Your task to perform on an android device: turn off data saver in the chrome app Image 0: 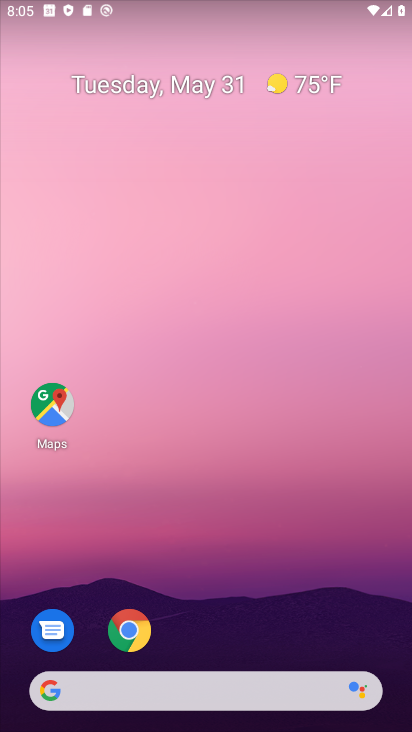
Step 0: drag from (232, 674) to (284, 250)
Your task to perform on an android device: turn off data saver in the chrome app Image 1: 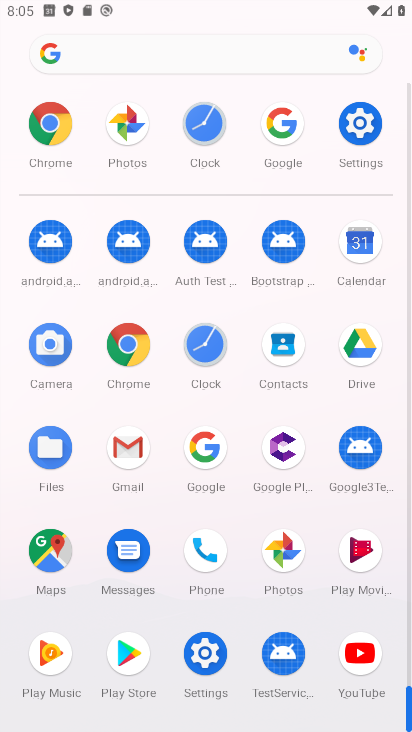
Step 1: click (66, 162)
Your task to perform on an android device: turn off data saver in the chrome app Image 2: 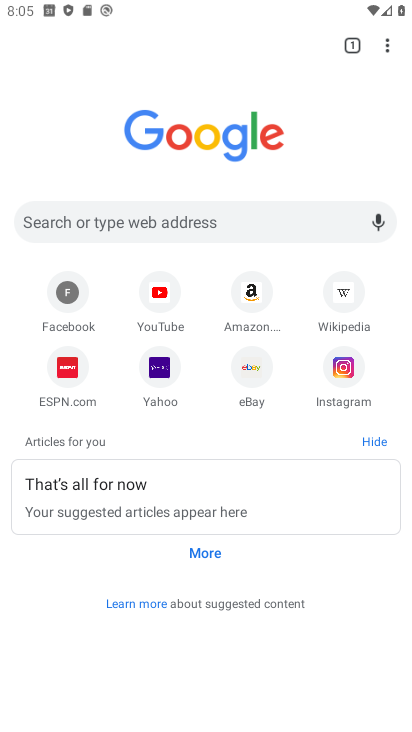
Step 2: click (389, 46)
Your task to perform on an android device: turn off data saver in the chrome app Image 3: 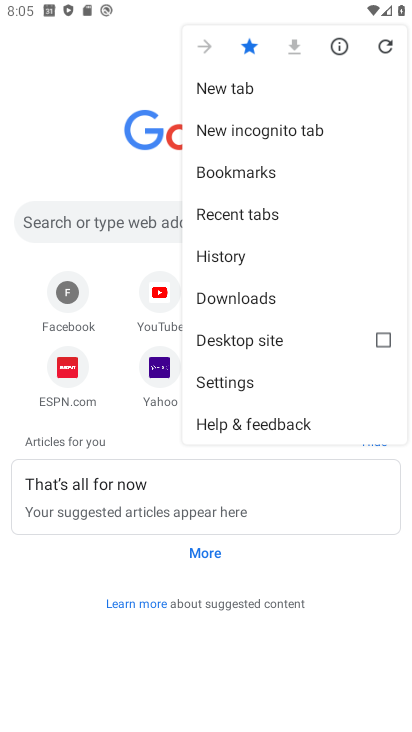
Step 3: drag from (297, 296) to (324, 127)
Your task to perform on an android device: turn off data saver in the chrome app Image 4: 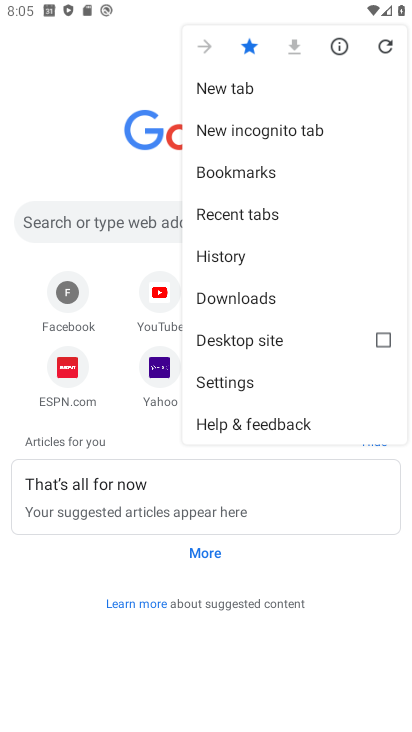
Step 4: click (250, 384)
Your task to perform on an android device: turn off data saver in the chrome app Image 5: 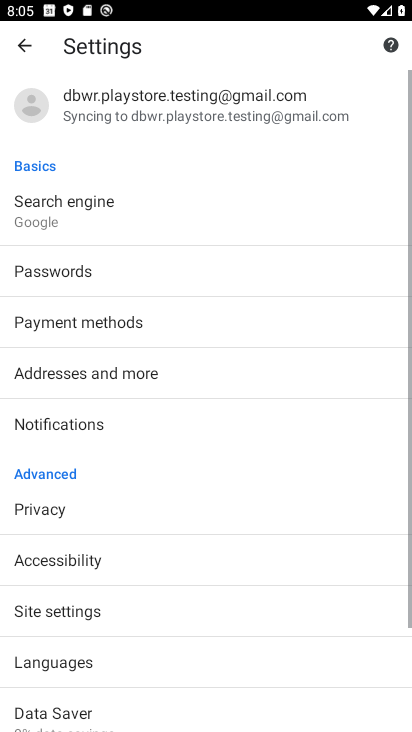
Step 5: drag from (209, 502) to (260, 312)
Your task to perform on an android device: turn off data saver in the chrome app Image 6: 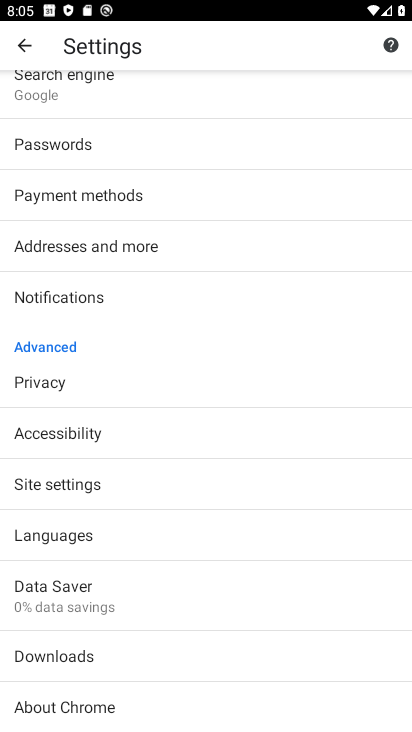
Step 6: click (103, 600)
Your task to perform on an android device: turn off data saver in the chrome app Image 7: 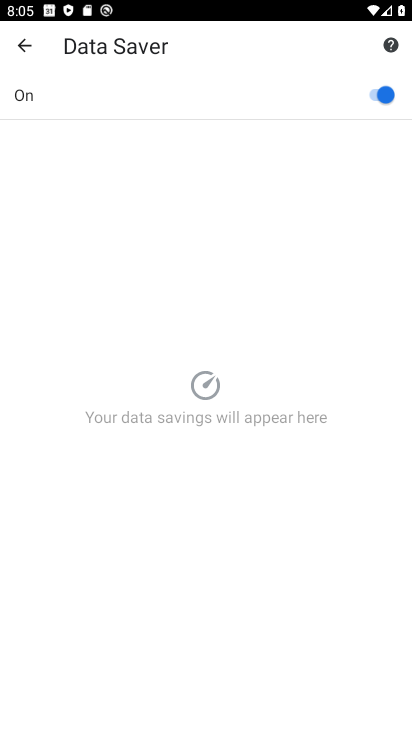
Step 7: click (381, 96)
Your task to perform on an android device: turn off data saver in the chrome app Image 8: 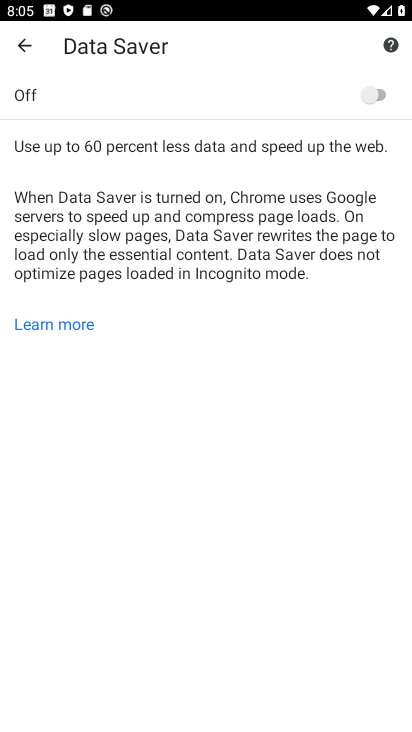
Step 8: task complete